Your task to perform on an android device: Go to location settings Image 0: 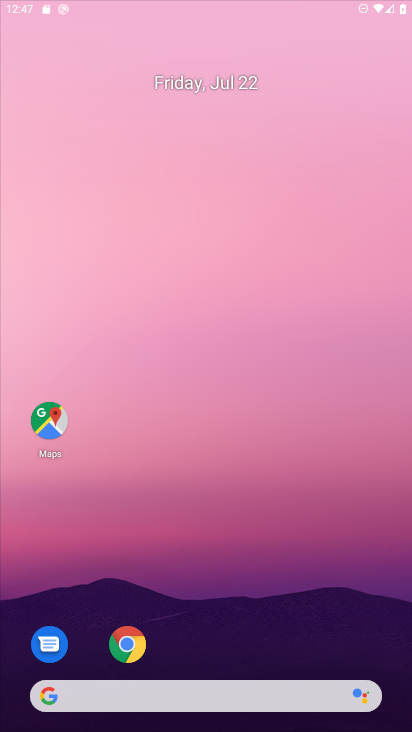
Step 0: click (198, 358)
Your task to perform on an android device: Go to location settings Image 1: 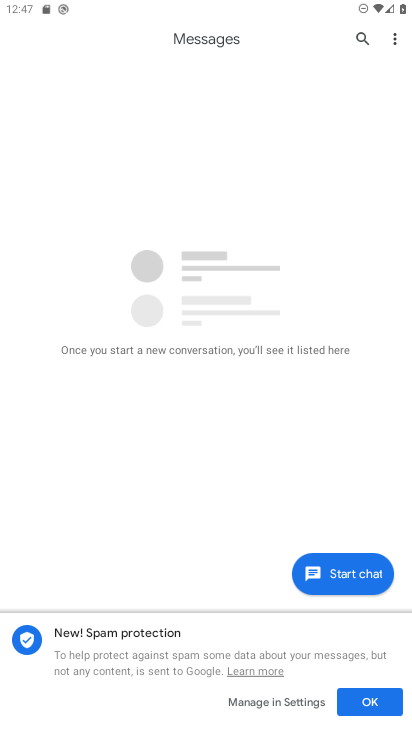
Step 1: press home button
Your task to perform on an android device: Go to location settings Image 2: 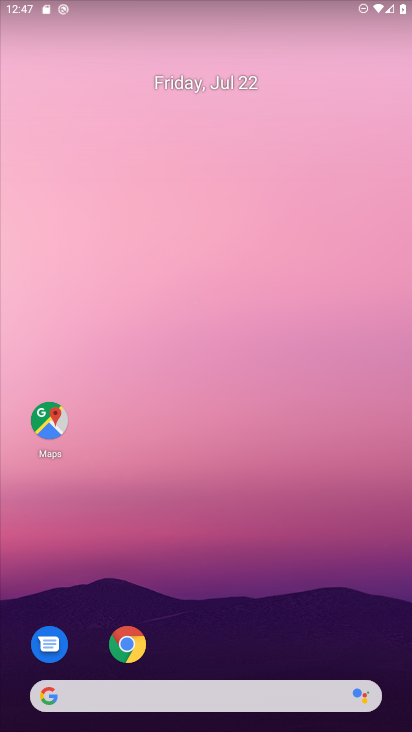
Step 2: drag from (181, 617) to (143, 324)
Your task to perform on an android device: Go to location settings Image 3: 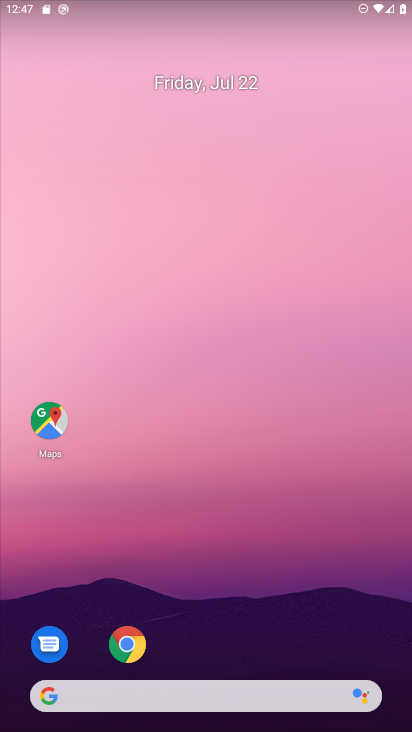
Step 3: drag from (266, 619) to (204, 226)
Your task to perform on an android device: Go to location settings Image 4: 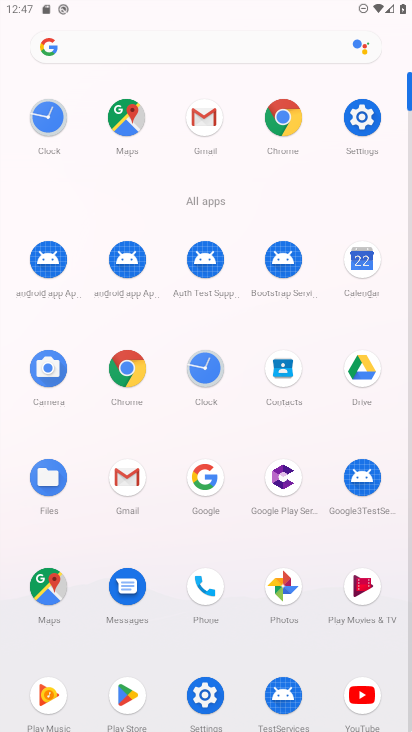
Step 4: click (369, 126)
Your task to perform on an android device: Go to location settings Image 5: 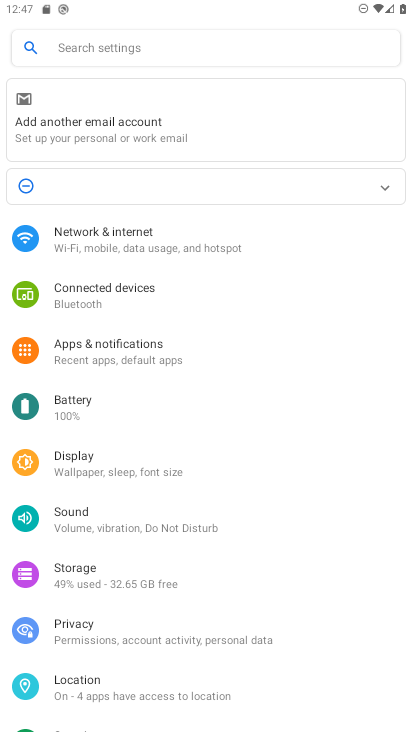
Step 5: click (150, 697)
Your task to perform on an android device: Go to location settings Image 6: 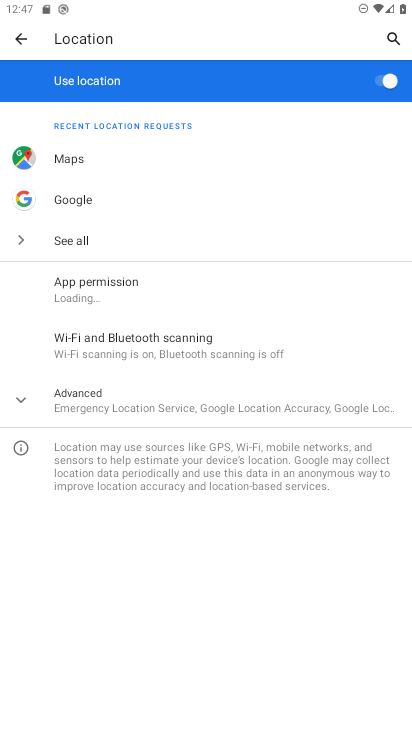
Step 6: task complete